Your task to perform on an android device: Open battery settings Image 0: 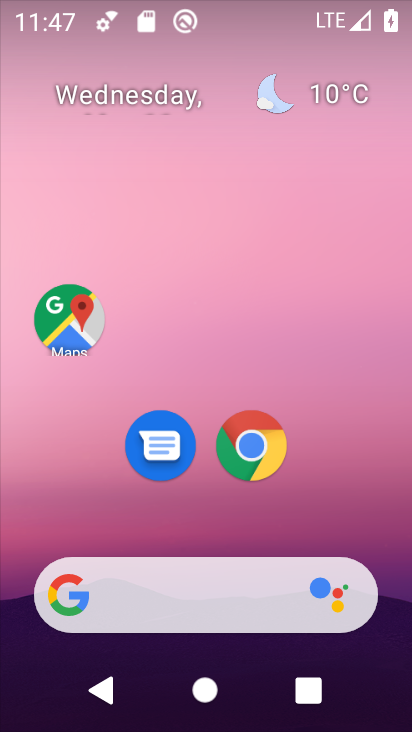
Step 0: drag from (200, 511) to (212, 82)
Your task to perform on an android device: Open battery settings Image 1: 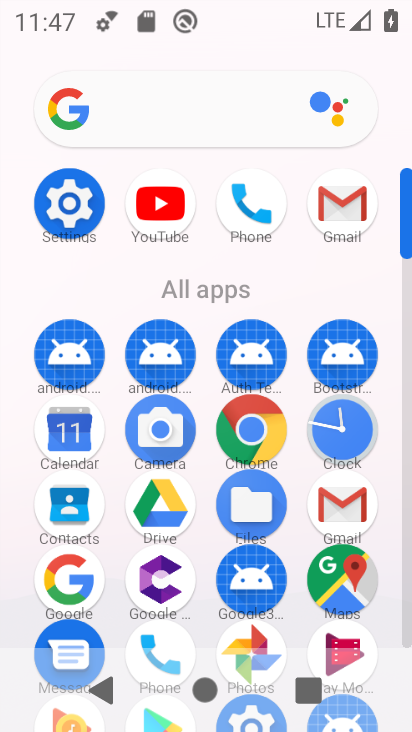
Step 1: click (59, 191)
Your task to perform on an android device: Open battery settings Image 2: 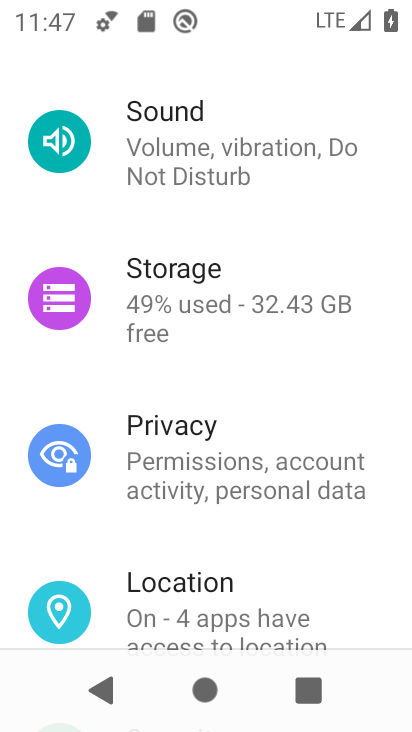
Step 2: drag from (252, 174) to (269, 630)
Your task to perform on an android device: Open battery settings Image 3: 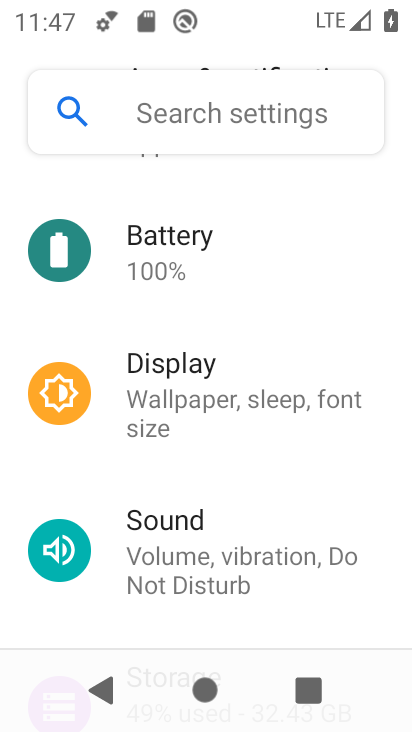
Step 3: click (187, 258)
Your task to perform on an android device: Open battery settings Image 4: 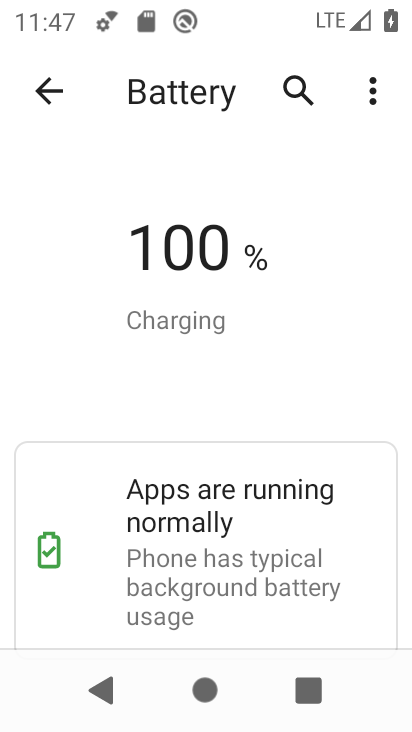
Step 4: task complete